Your task to perform on an android device: Open Google Chrome and click the shortcut for Amazon.com Image 0: 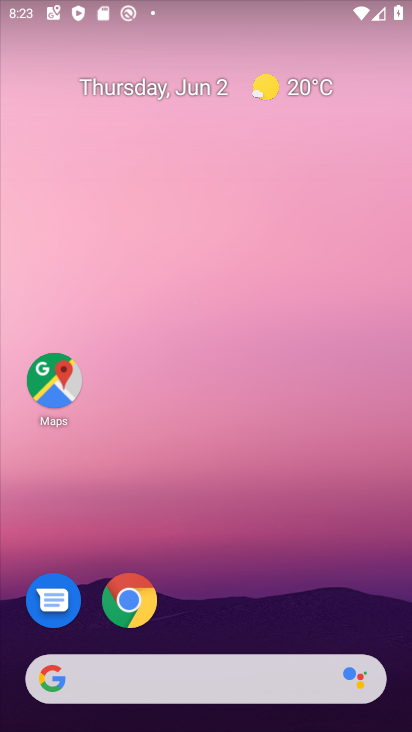
Step 0: drag from (331, 590) to (330, 229)
Your task to perform on an android device: Open Google Chrome and click the shortcut for Amazon.com Image 1: 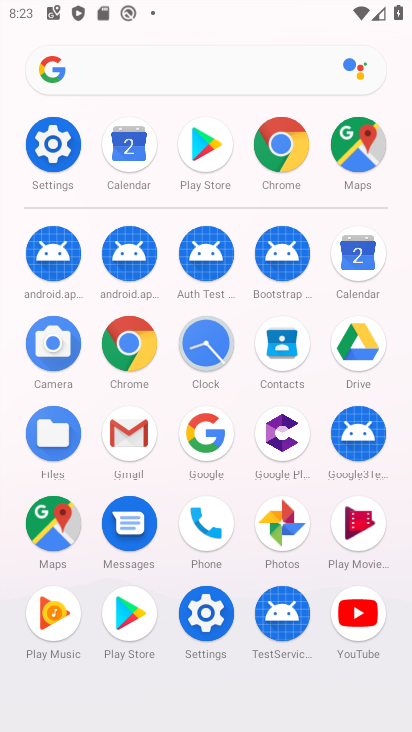
Step 1: click (140, 363)
Your task to perform on an android device: Open Google Chrome and click the shortcut for Amazon.com Image 2: 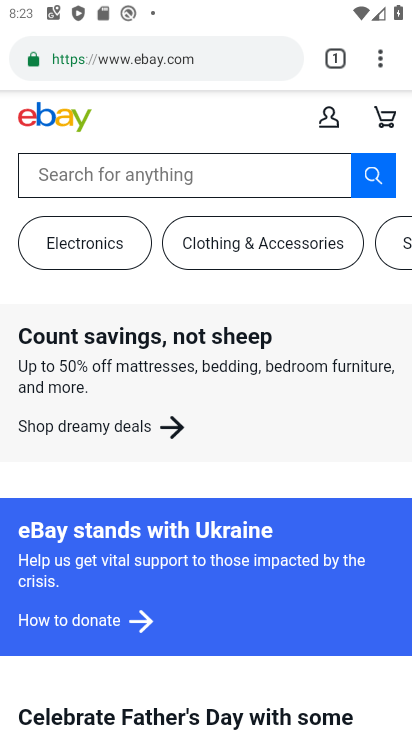
Step 2: press back button
Your task to perform on an android device: Open Google Chrome and click the shortcut for Amazon.com Image 3: 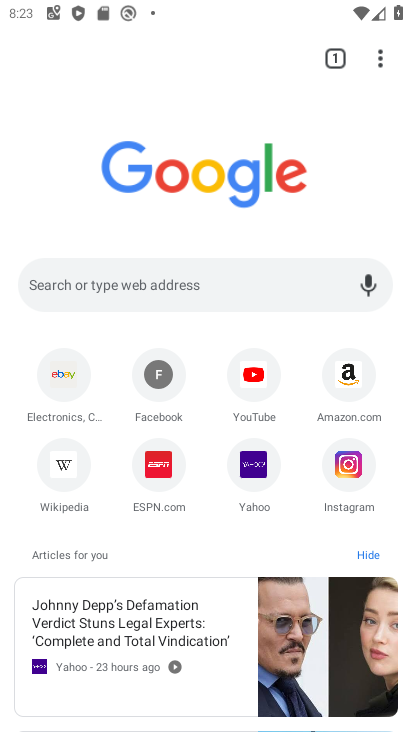
Step 3: click (361, 380)
Your task to perform on an android device: Open Google Chrome and click the shortcut for Amazon.com Image 4: 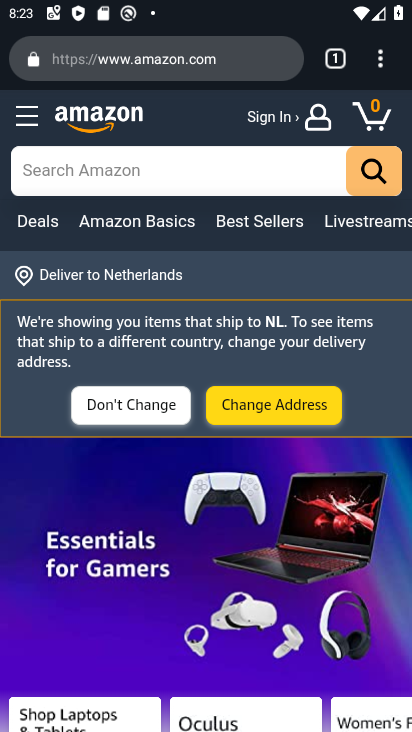
Step 4: task complete